Your task to perform on an android device: Go to Google maps Image 0: 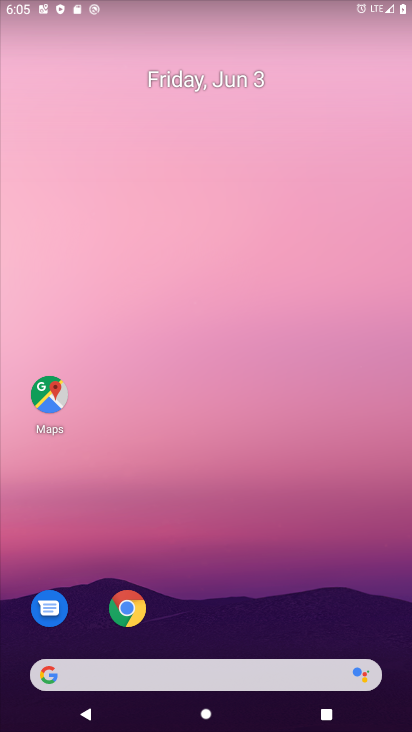
Step 0: click (49, 396)
Your task to perform on an android device: Go to Google maps Image 1: 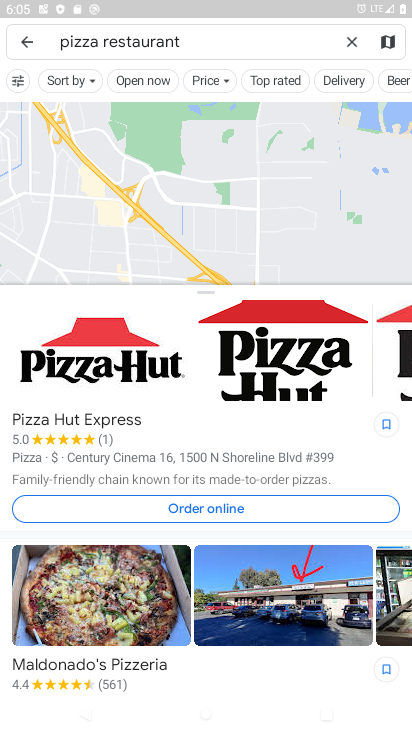
Step 1: task complete